Your task to perform on an android device: check android version Image 0: 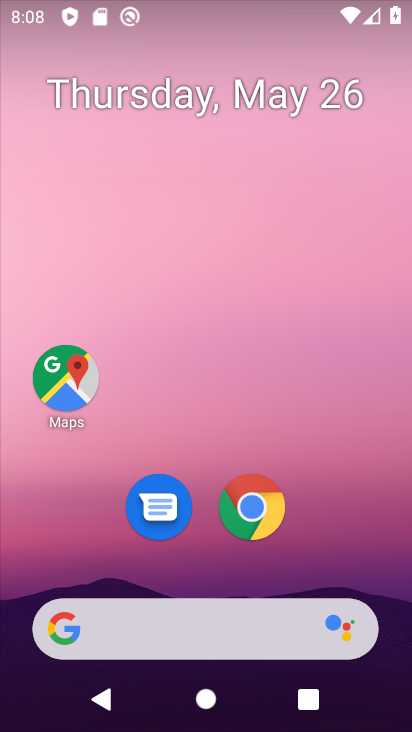
Step 0: drag from (210, 527) to (124, 10)
Your task to perform on an android device: check android version Image 1: 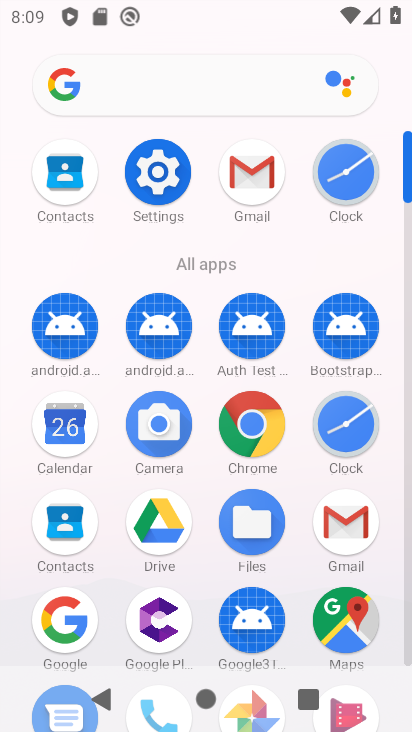
Step 1: click (161, 174)
Your task to perform on an android device: check android version Image 2: 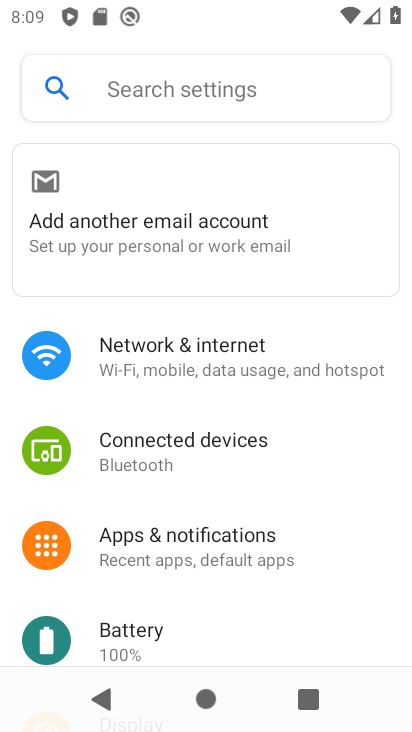
Step 2: drag from (205, 609) to (299, 98)
Your task to perform on an android device: check android version Image 3: 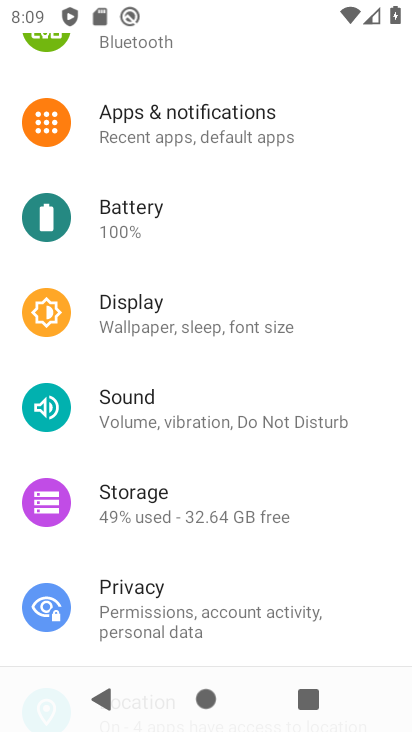
Step 3: drag from (218, 583) to (348, 12)
Your task to perform on an android device: check android version Image 4: 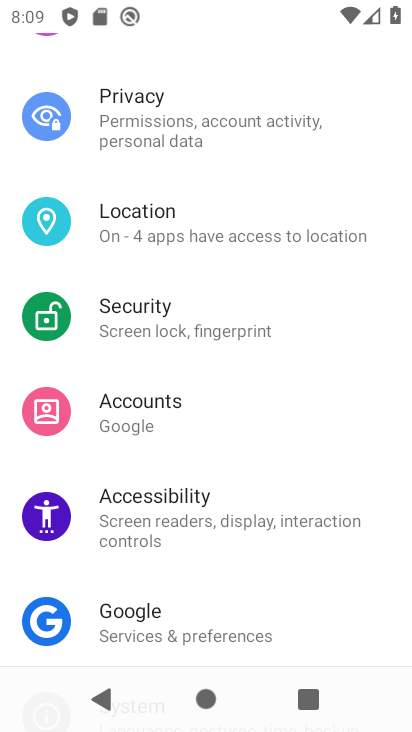
Step 4: drag from (205, 601) to (306, 107)
Your task to perform on an android device: check android version Image 5: 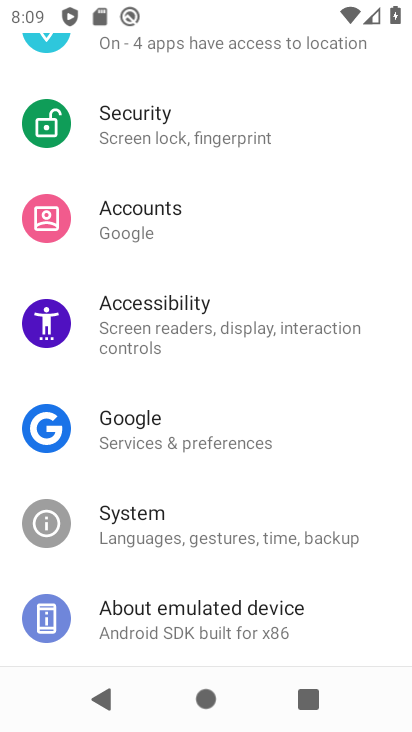
Step 5: click (262, 614)
Your task to perform on an android device: check android version Image 6: 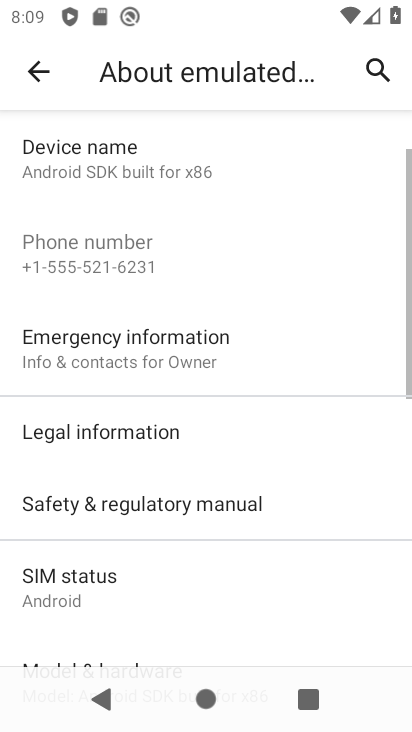
Step 6: drag from (213, 607) to (290, 168)
Your task to perform on an android device: check android version Image 7: 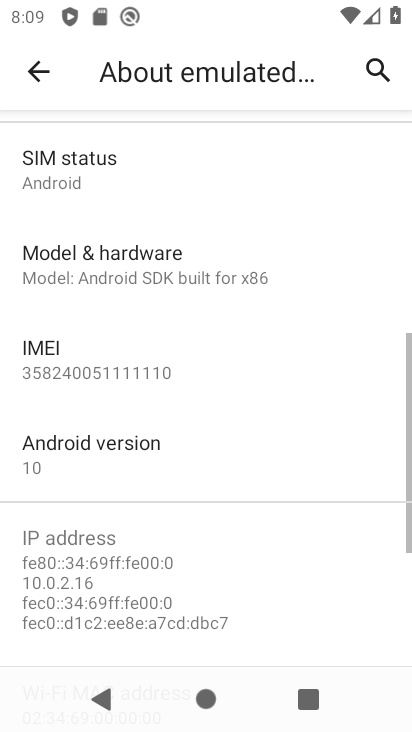
Step 7: click (138, 451)
Your task to perform on an android device: check android version Image 8: 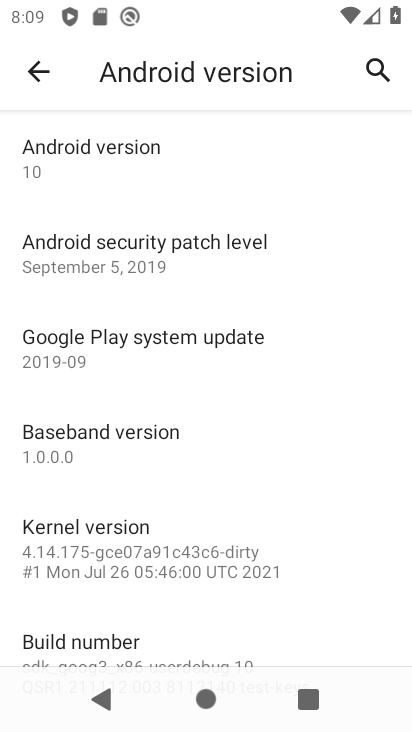
Step 8: task complete